Your task to perform on an android device: Search for hotels in Chicago Image 0: 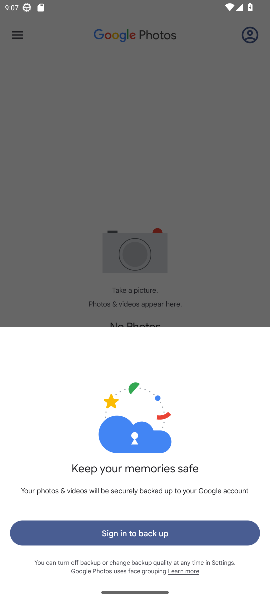
Step 0: click (183, 209)
Your task to perform on an android device: Search for hotels in Chicago Image 1: 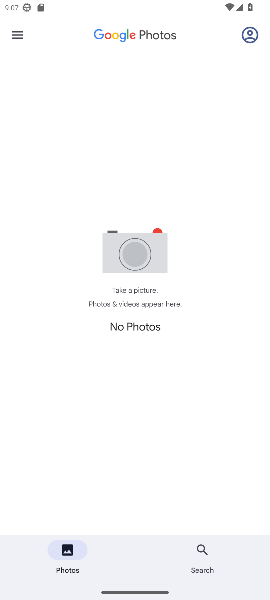
Step 1: press home button
Your task to perform on an android device: Search for hotels in Chicago Image 2: 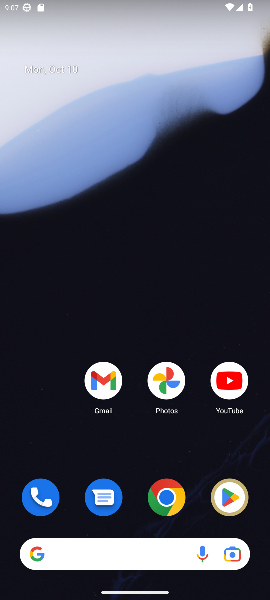
Step 2: drag from (172, 456) to (184, 114)
Your task to perform on an android device: Search for hotels in Chicago Image 3: 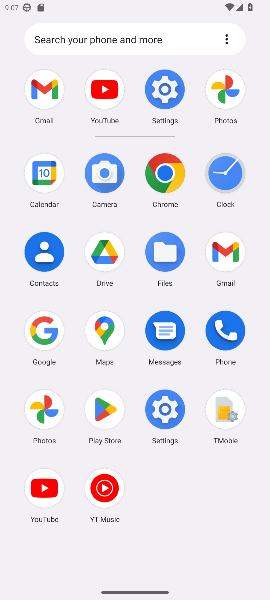
Step 3: click (33, 331)
Your task to perform on an android device: Search for hotels in Chicago Image 4: 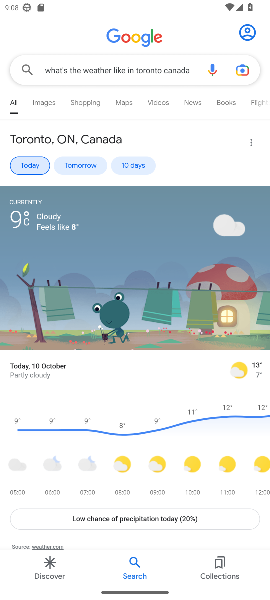
Step 4: click (175, 62)
Your task to perform on an android device: Search for hotels in Chicago Image 5: 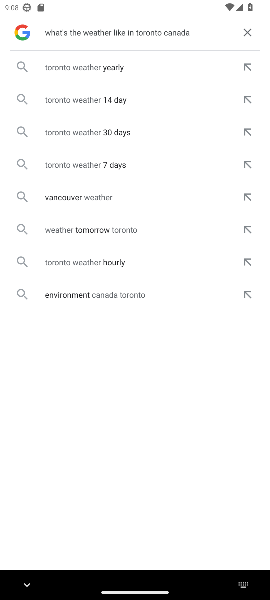
Step 5: click (246, 31)
Your task to perform on an android device: Search for hotels in Chicago Image 6: 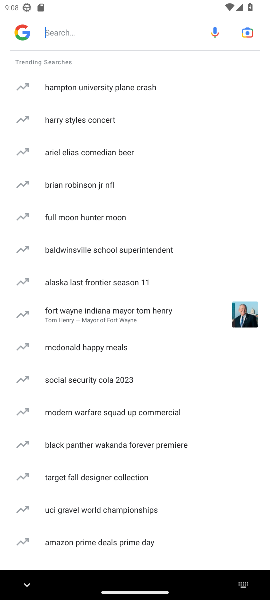
Step 6: click (152, 32)
Your task to perform on an android device: Search for hotels in Chicago Image 7: 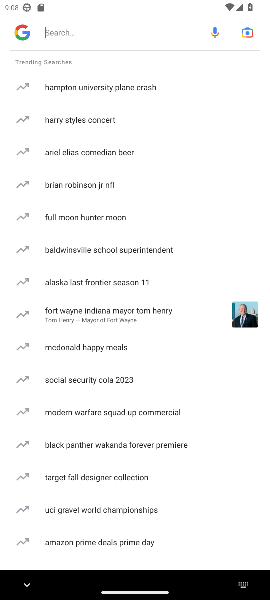
Step 7: type " Search for hotels in Chicago"
Your task to perform on an android device: Search for hotels in Chicago Image 8: 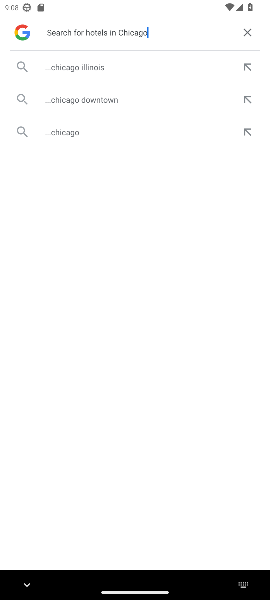
Step 8: click (83, 65)
Your task to perform on an android device: Search for hotels in Chicago Image 9: 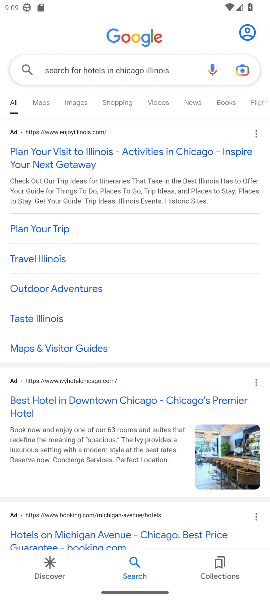
Step 9: click (114, 401)
Your task to perform on an android device: Search for hotels in Chicago Image 10: 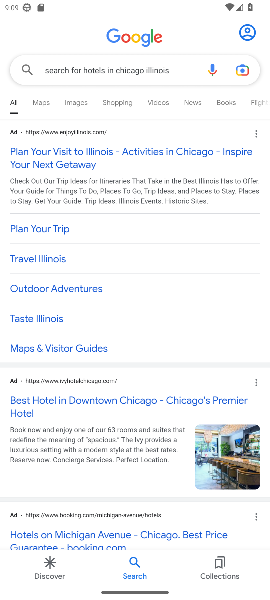
Step 10: click (114, 401)
Your task to perform on an android device: Search for hotels in Chicago Image 11: 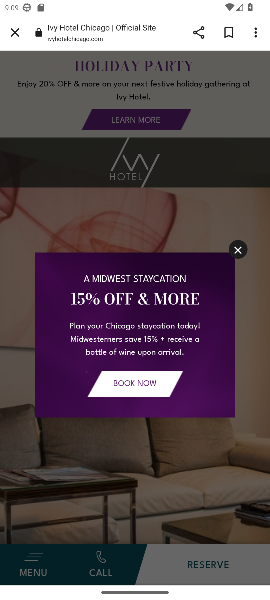
Step 11: click (240, 249)
Your task to perform on an android device: Search for hotels in Chicago Image 12: 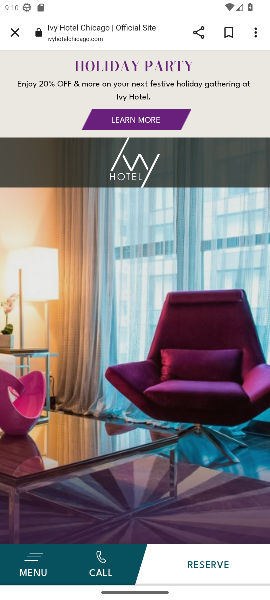
Step 12: drag from (119, 418) to (96, 210)
Your task to perform on an android device: Search for hotels in Chicago Image 13: 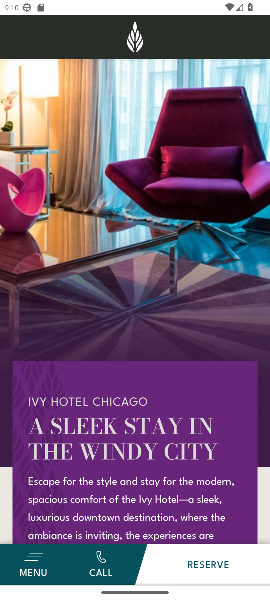
Step 13: click (180, 532)
Your task to perform on an android device: Search for hotels in Chicago Image 14: 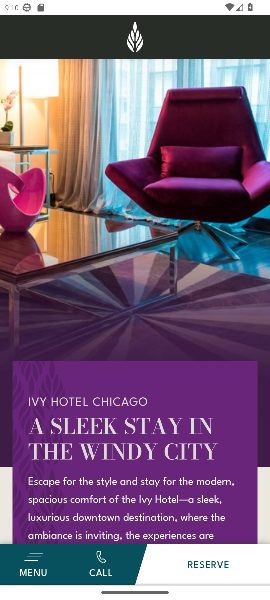
Step 14: task complete